Your task to perform on an android device: turn smart compose on in the gmail app Image 0: 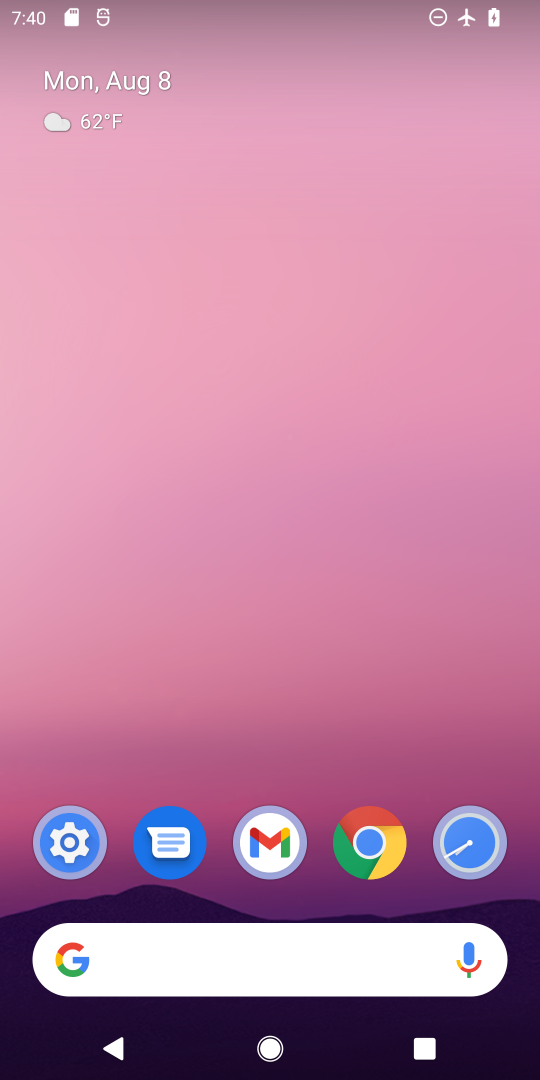
Step 0: drag from (278, 948) to (352, 13)
Your task to perform on an android device: turn smart compose on in the gmail app Image 1: 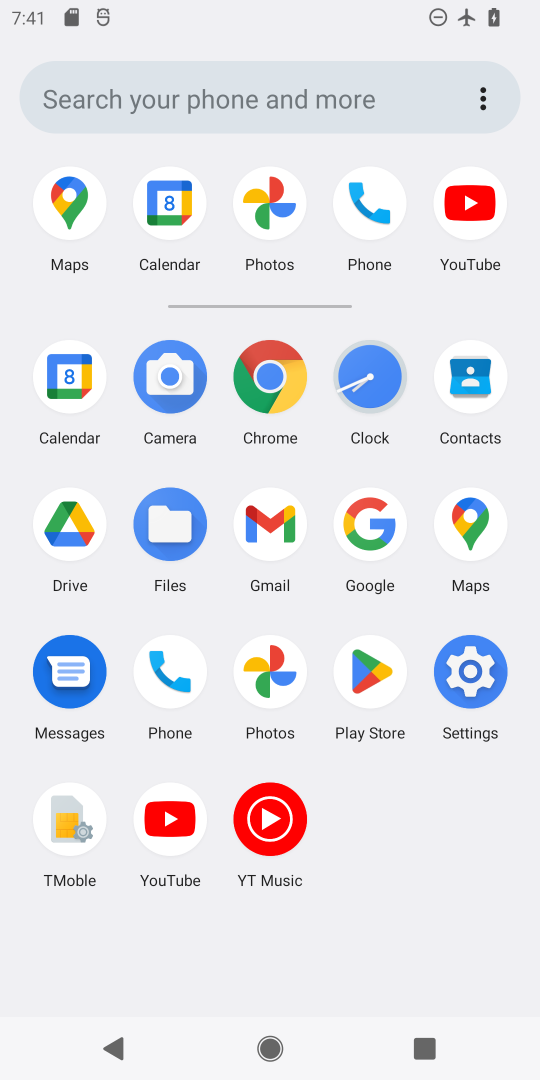
Step 1: click (270, 560)
Your task to perform on an android device: turn smart compose on in the gmail app Image 2: 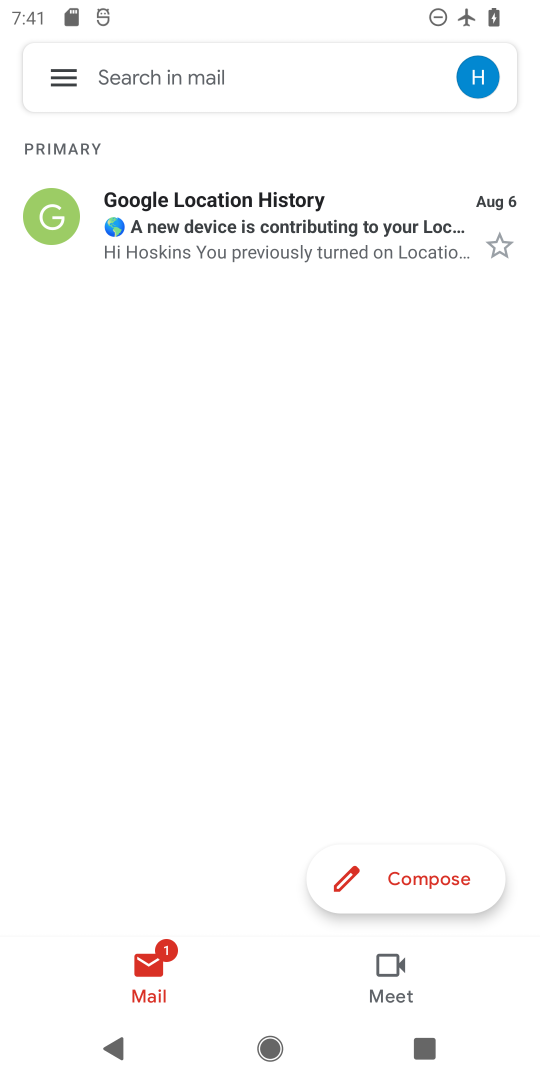
Step 2: drag from (75, 63) to (128, 63)
Your task to perform on an android device: turn smart compose on in the gmail app Image 3: 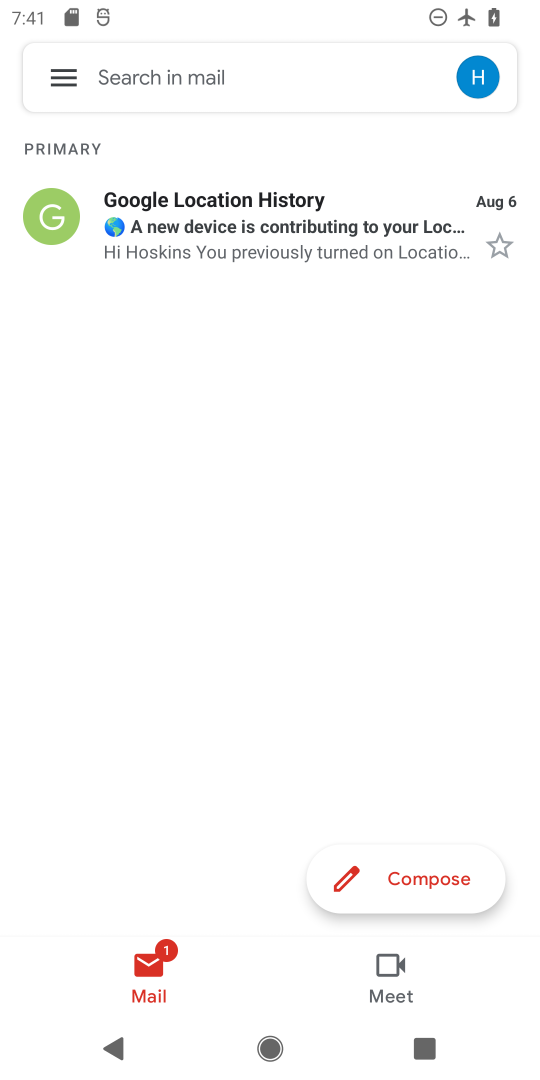
Step 3: click (50, 70)
Your task to perform on an android device: turn smart compose on in the gmail app Image 4: 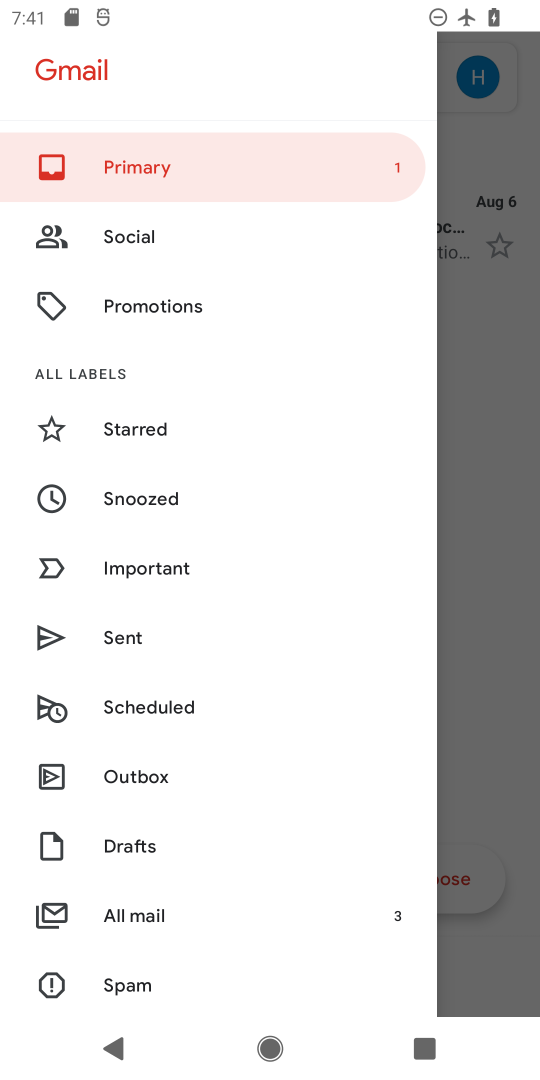
Step 4: drag from (226, 839) to (205, 210)
Your task to perform on an android device: turn smart compose on in the gmail app Image 5: 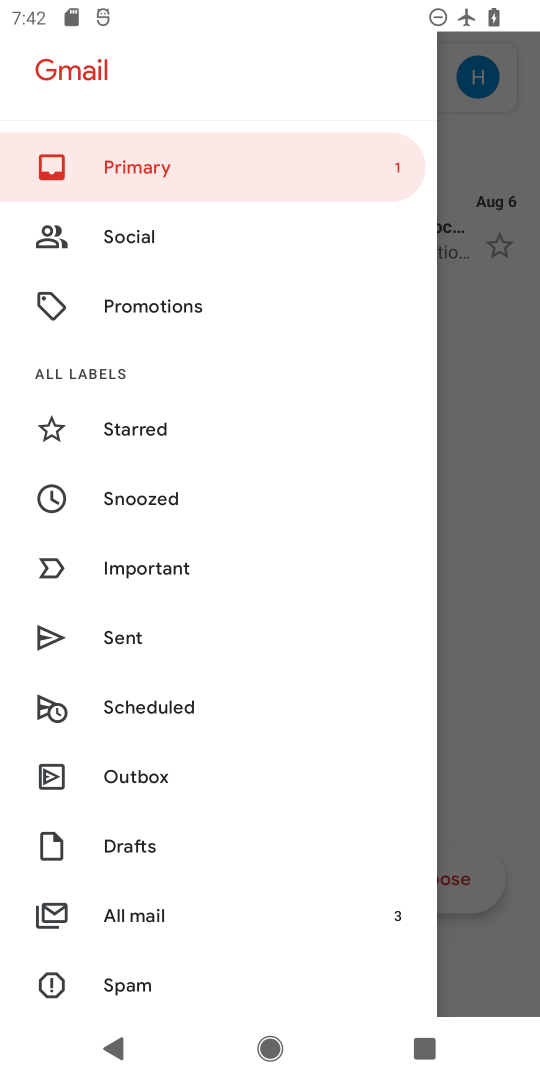
Step 5: drag from (163, 911) to (161, 255)
Your task to perform on an android device: turn smart compose on in the gmail app Image 6: 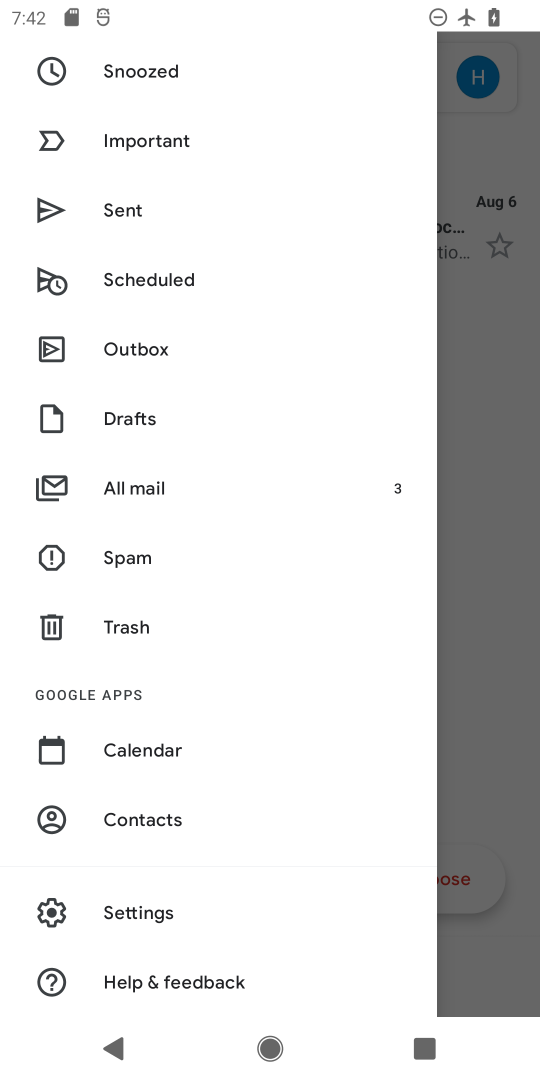
Step 6: click (169, 904)
Your task to perform on an android device: turn smart compose on in the gmail app Image 7: 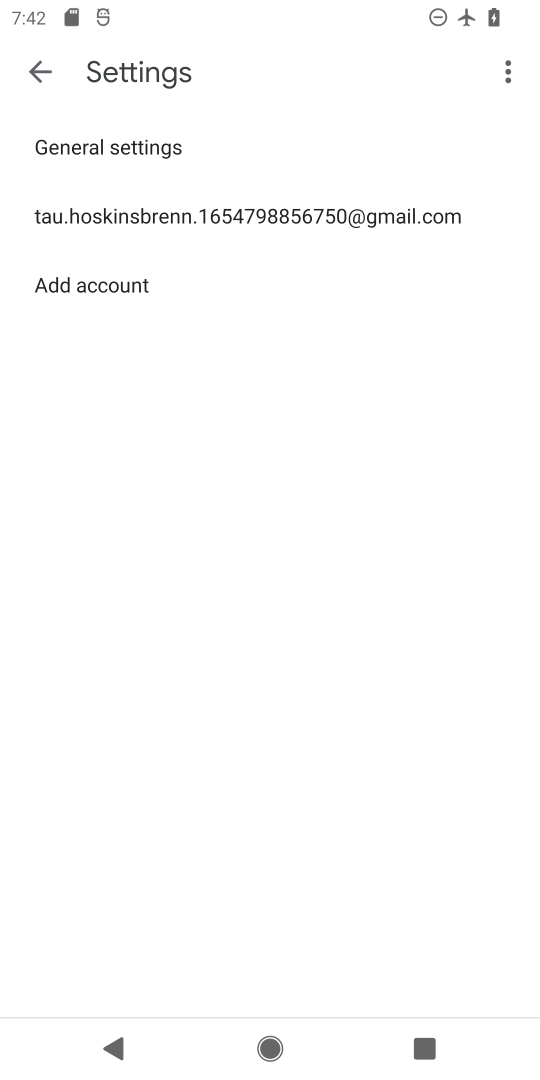
Step 7: click (61, 219)
Your task to perform on an android device: turn smart compose on in the gmail app Image 8: 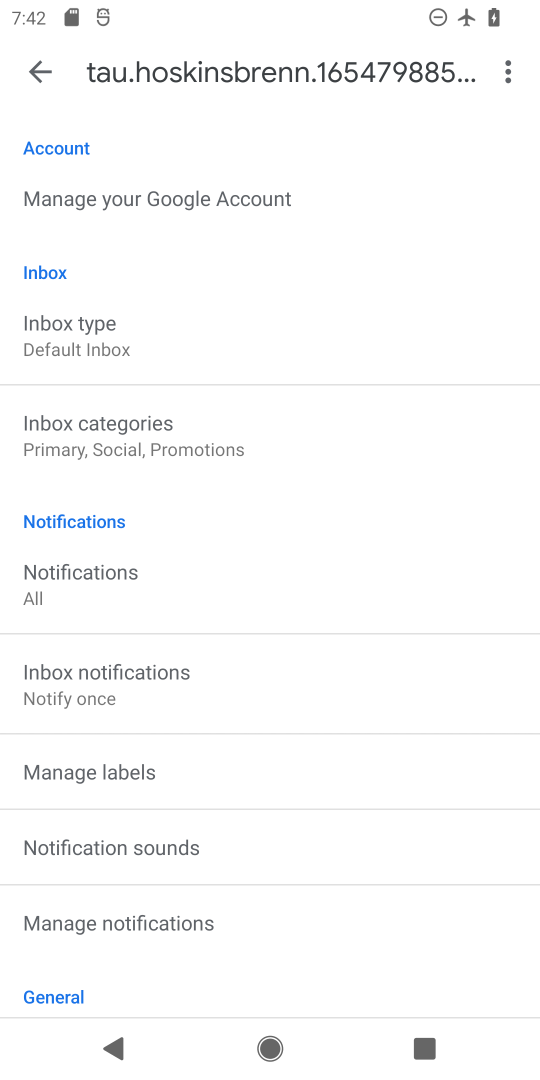
Step 8: task complete